Your task to perform on an android device: Open the stopwatch Image 0: 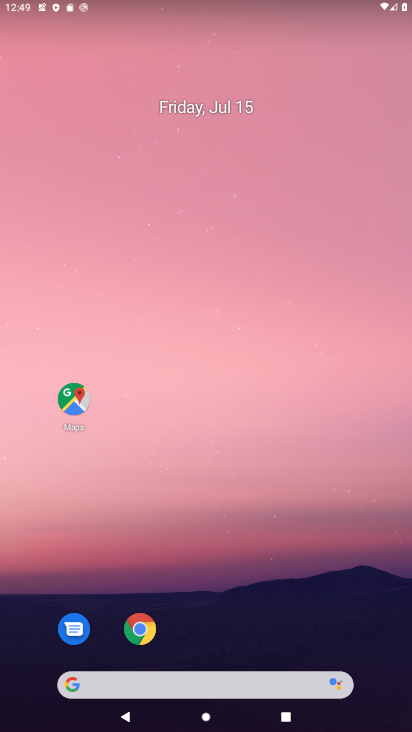
Step 0: drag from (296, 627) to (290, 148)
Your task to perform on an android device: Open the stopwatch Image 1: 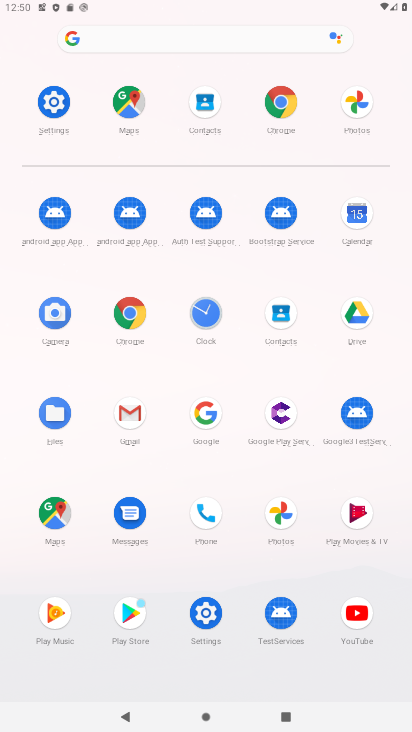
Step 1: click (207, 315)
Your task to perform on an android device: Open the stopwatch Image 2: 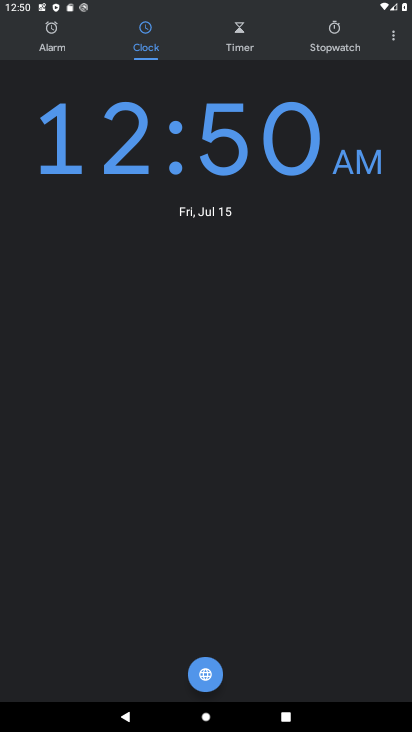
Step 2: click (348, 47)
Your task to perform on an android device: Open the stopwatch Image 3: 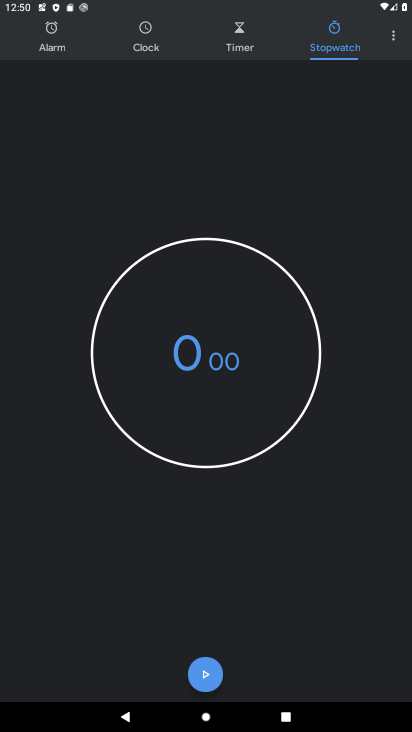
Step 3: task complete